Your task to perform on an android device: Open Chrome and go to settings Image 0: 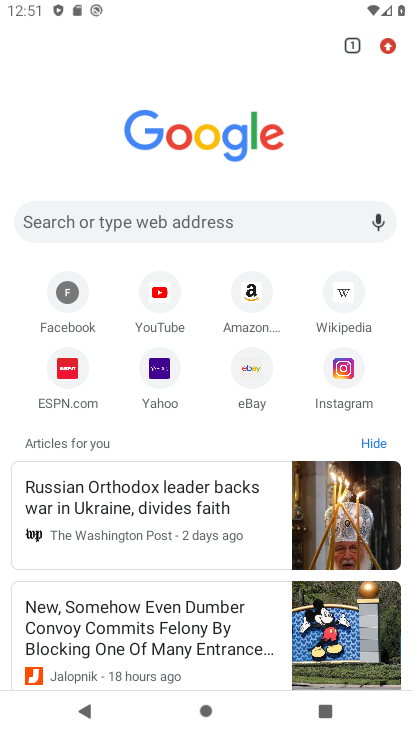
Step 0: press home button
Your task to perform on an android device: Open Chrome and go to settings Image 1: 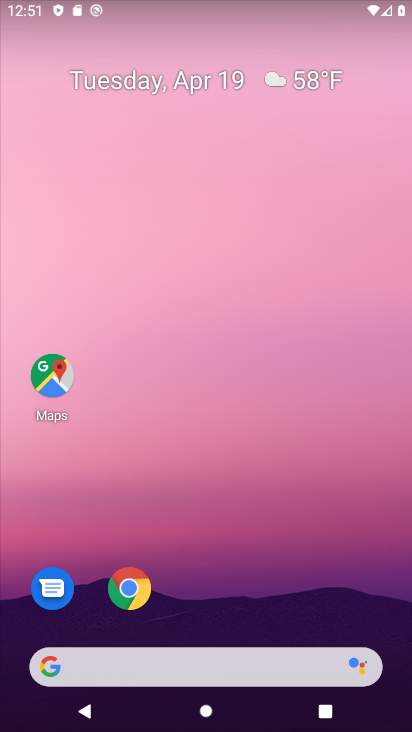
Step 1: click (128, 591)
Your task to perform on an android device: Open Chrome and go to settings Image 2: 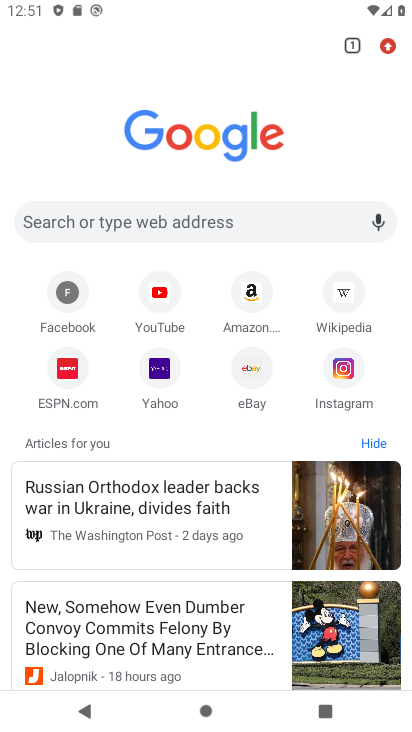
Step 2: click (388, 46)
Your task to perform on an android device: Open Chrome and go to settings Image 3: 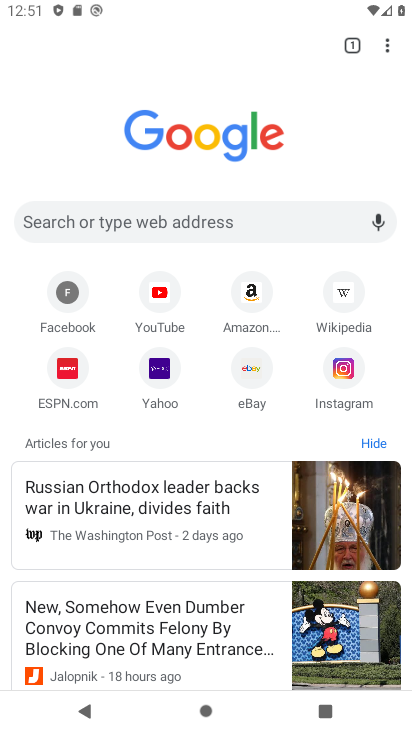
Step 3: click (388, 46)
Your task to perform on an android device: Open Chrome and go to settings Image 4: 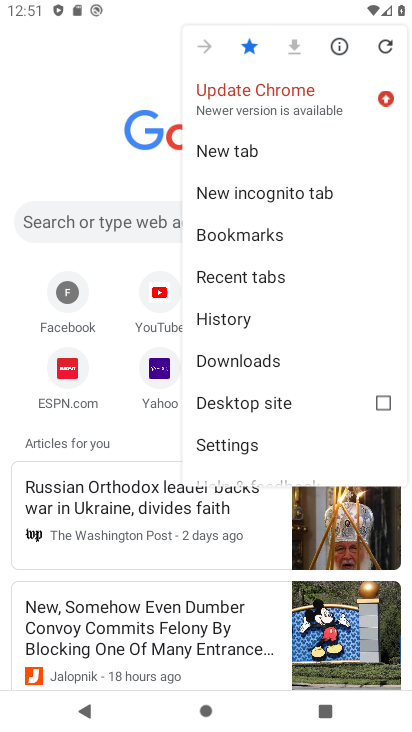
Step 4: click (236, 451)
Your task to perform on an android device: Open Chrome and go to settings Image 5: 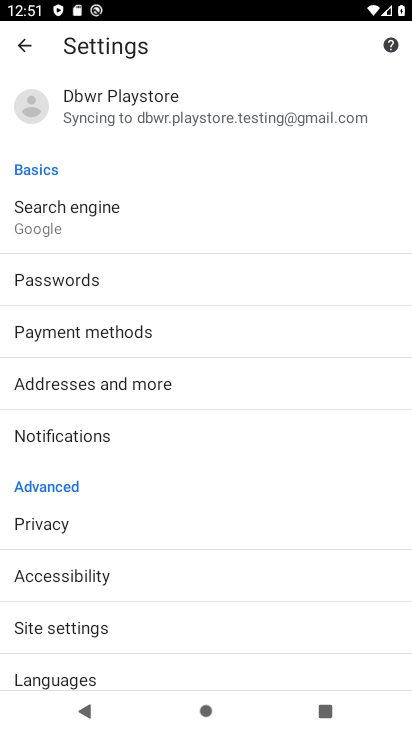
Step 5: task complete